Your task to perform on an android device: allow notifications from all sites in the chrome app Image 0: 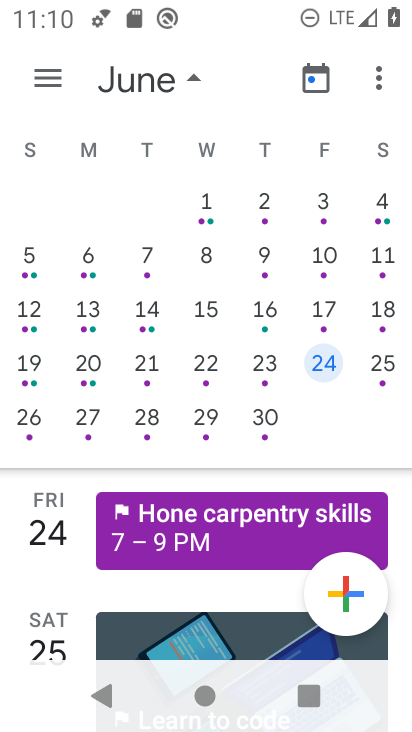
Step 0: press home button
Your task to perform on an android device: allow notifications from all sites in the chrome app Image 1: 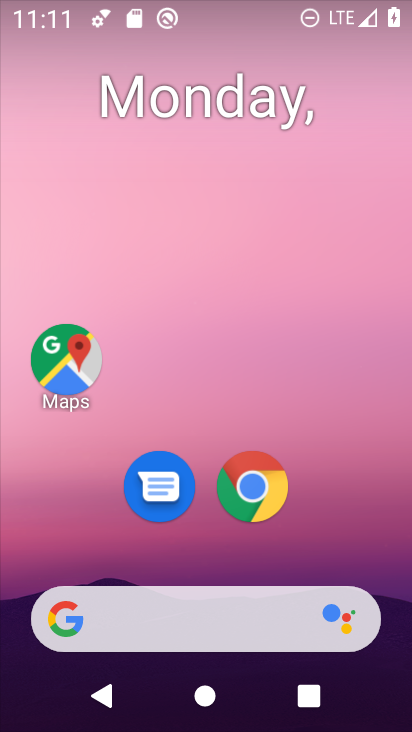
Step 1: click (254, 478)
Your task to perform on an android device: allow notifications from all sites in the chrome app Image 2: 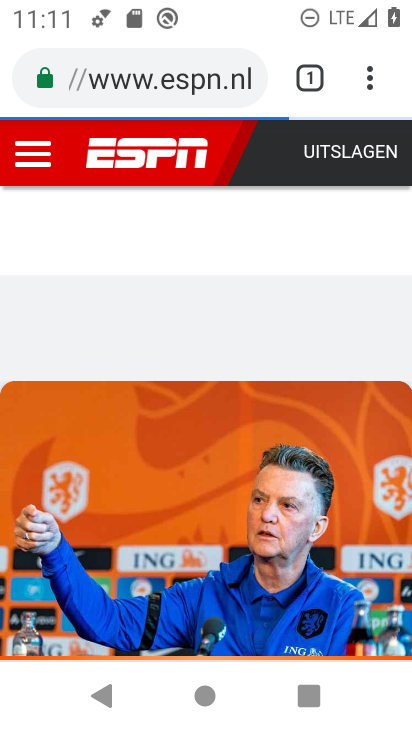
Step 2: click (368, 82)
Your task to perform on an android device: allow notifications from all sites in the chrome app Image 3: 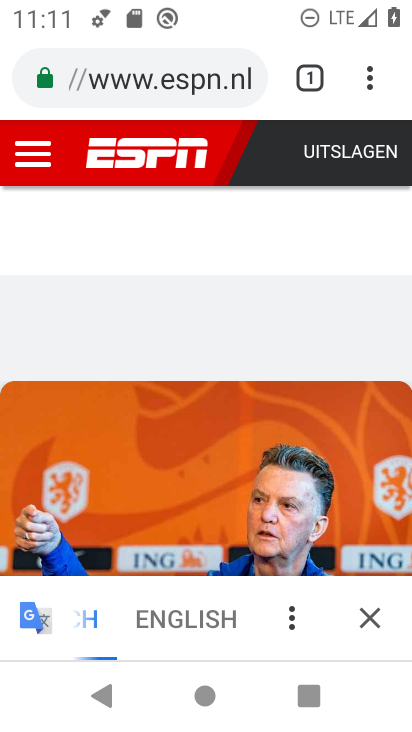
Step 3: click (373, 71)
Your task to perform on an android device: allow notifications from all sites in the chrome app Image 4: 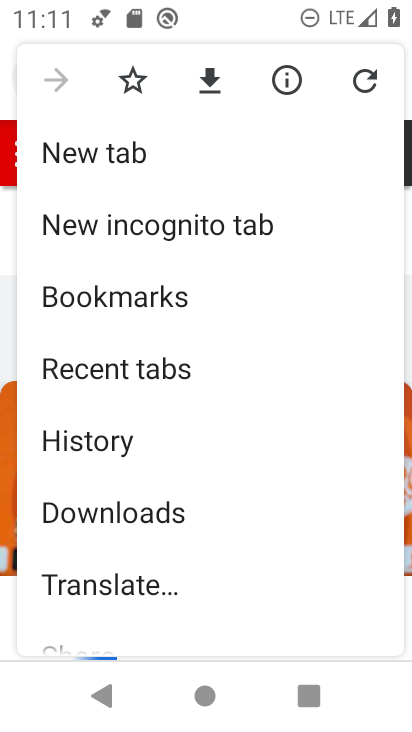
Step 4: drag from (77, 593) to (284, 222)
Your task to perform on an android device: allow notifications from all sites in the chrome app Image 5: 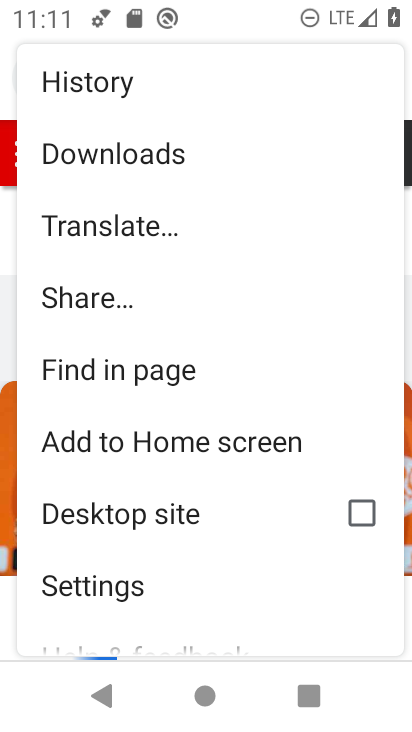
Step 5: drag from (6, 641) to (266, 292)
Your task to perform on an android device: allow notifications from all sites in the chrome app Image 6: 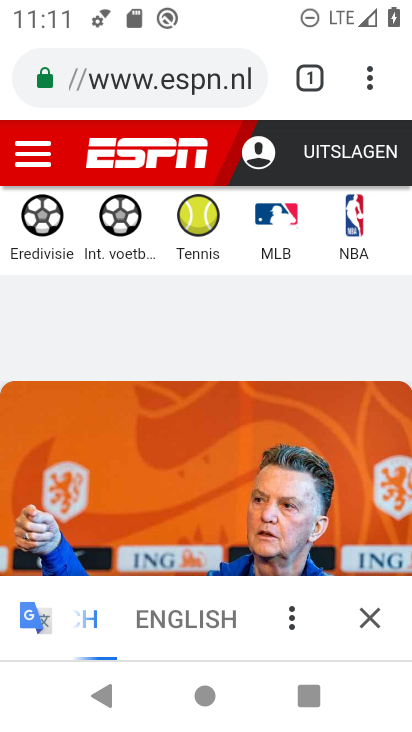
Step 6: click (367, 77)
Your task to perform on an android device: allow notifications from all sites in the chrome app Image 7: 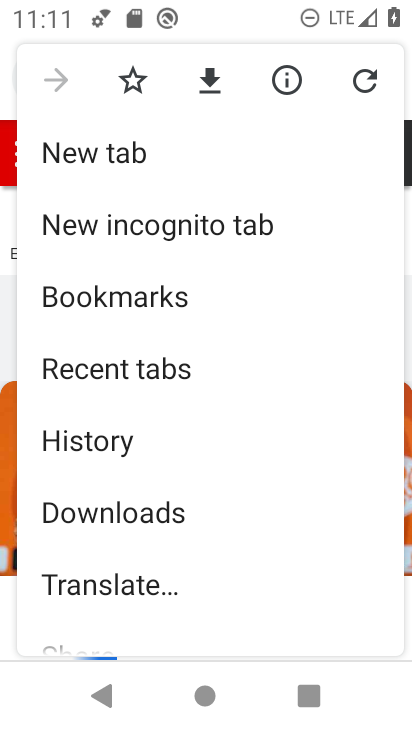
Step 7: drag from (89, 592) to (307, 205)
Your task to perform on an android device: allow notifications from all sites in the chrome app Image 8: 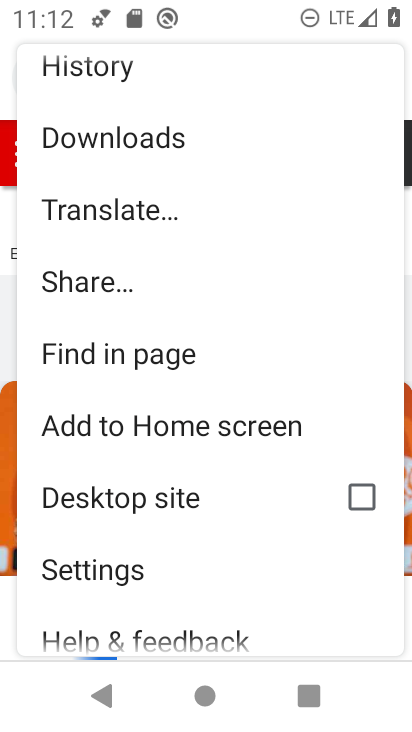
Step 8: click (60, 568)
Your task to perform on an android device: allow notifications from all sites in the chrome app Image 9: 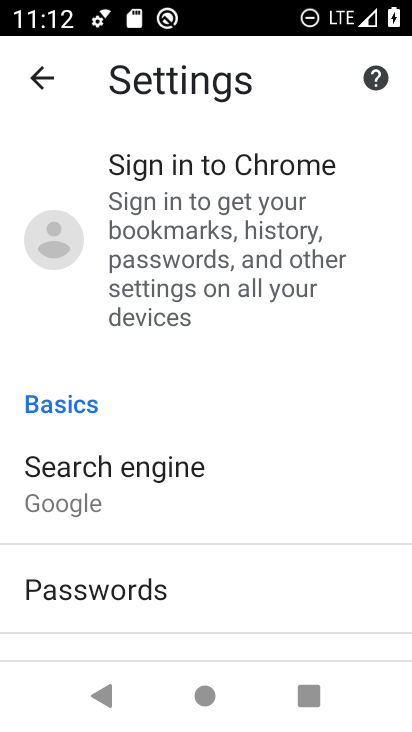
Step 9: drag from (19, 542) to (209, 167)
Your task to perform on an android device: allow notifications from all sites in the chrome app Image 10: 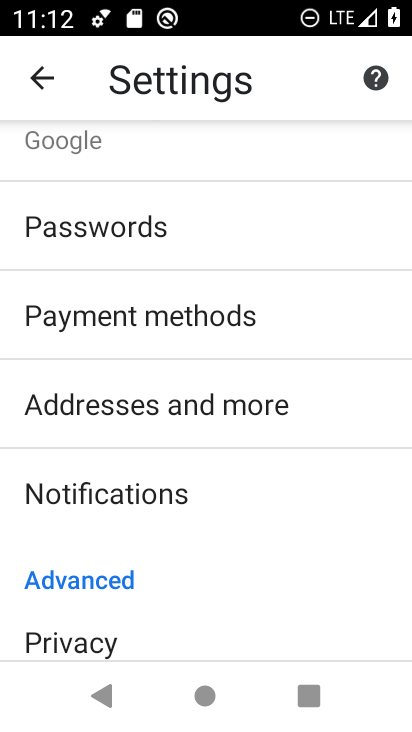
Step 10: click (106, 486)
Your task to perform on an android device: allow notifications from all sites in the chrome app Image 11: 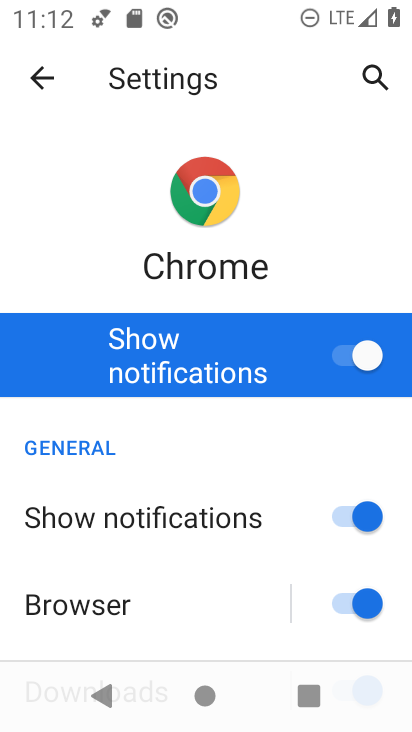
Step 11: task complete